Your task to perform on an android device: uninstall "Airtel Thanks" Image 0: 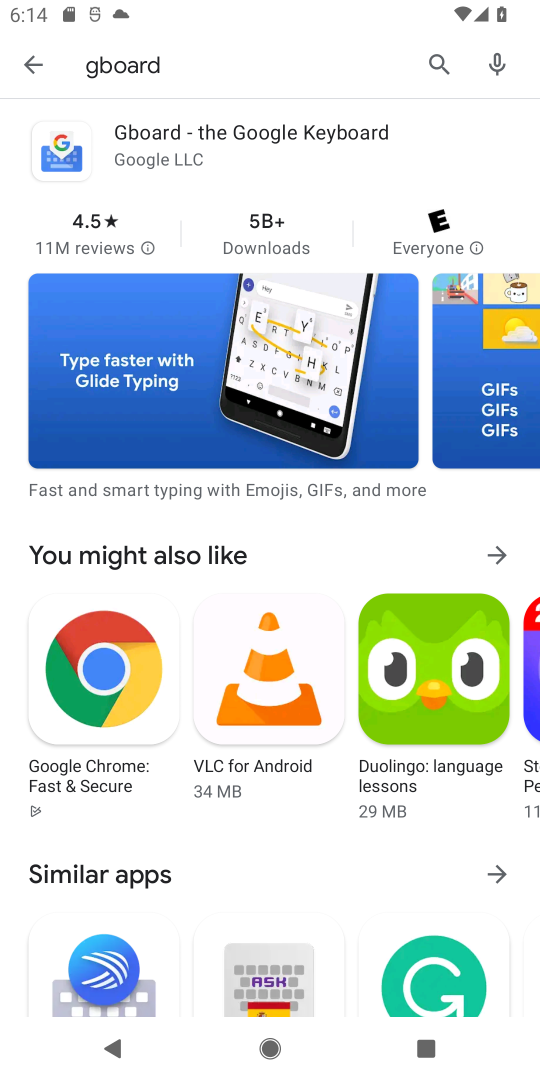
Step 0: click (430, 58)
Your task to perform on an android device: uninstall "Airtel Thanks" Image 1: 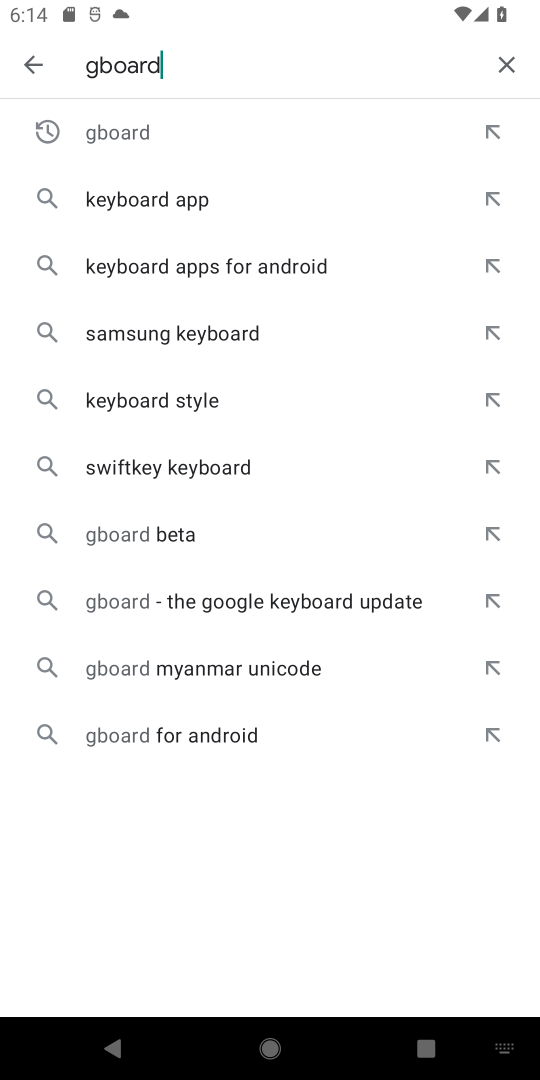
Step 1: click (493, 52)
Your task to perform on an android device: uninstall "Airtel Thanks" Image 2: 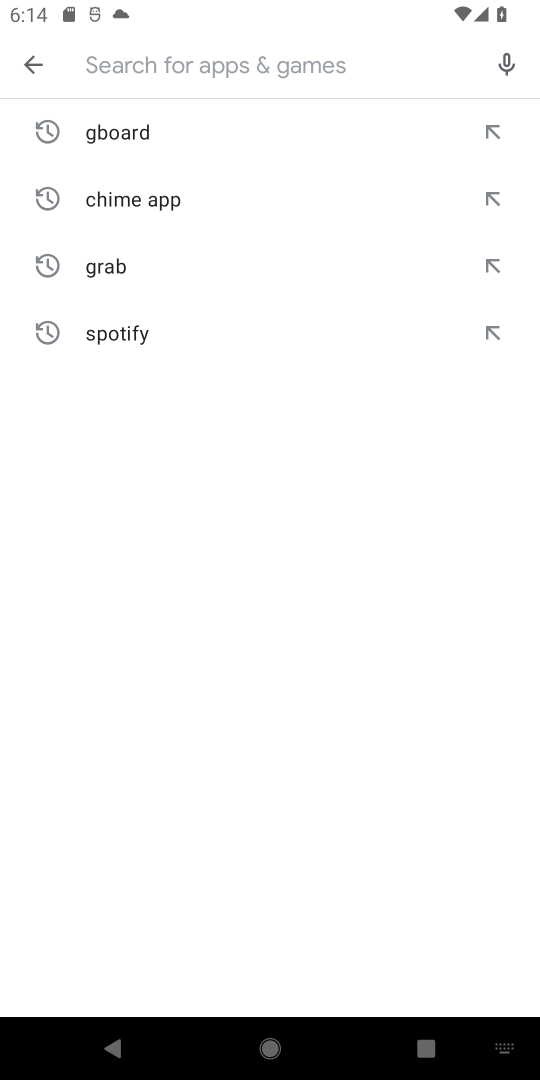
Step 2: type "airtel  thanks"
Your task to perform on an android device: uninstall "Airtel Thanks" Image 3: 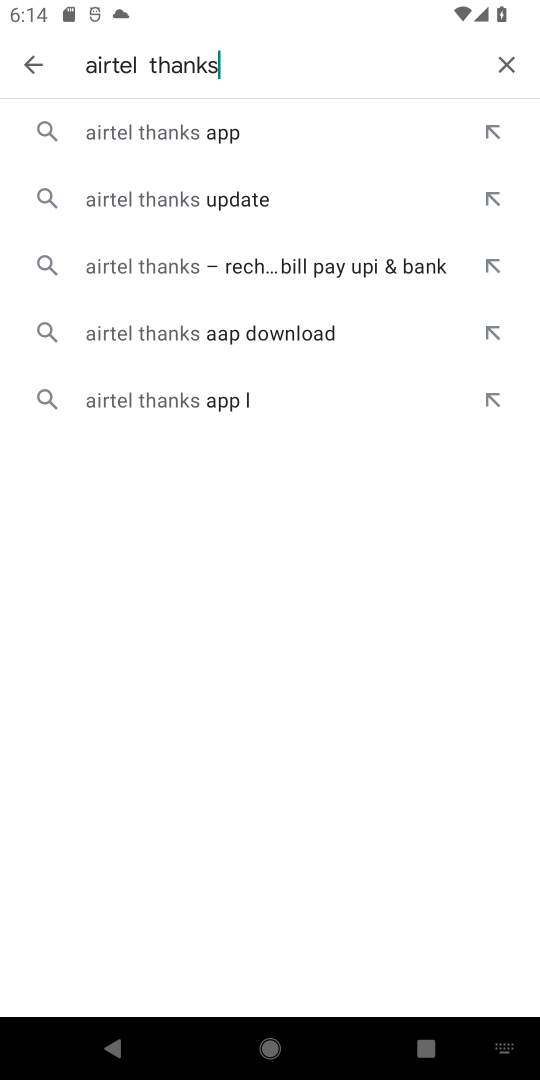
Step 3: click (328, 132)
Your task to perform on an android device: uninstall "Airtel Thanks" Image 4: 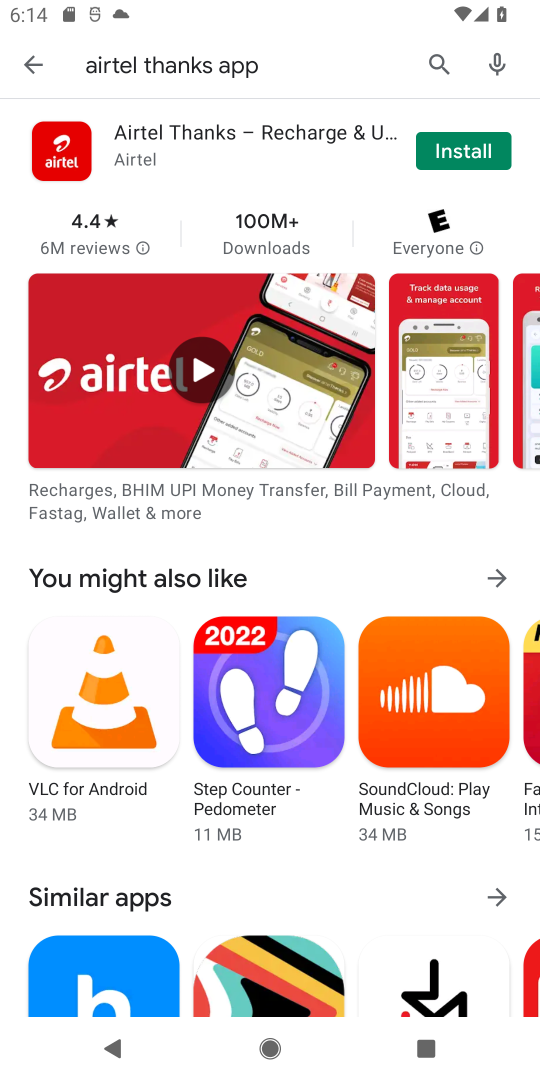
Step 4: task complete